Your task to perform on an android device: move an email to a new category in the gmail app Image 0: 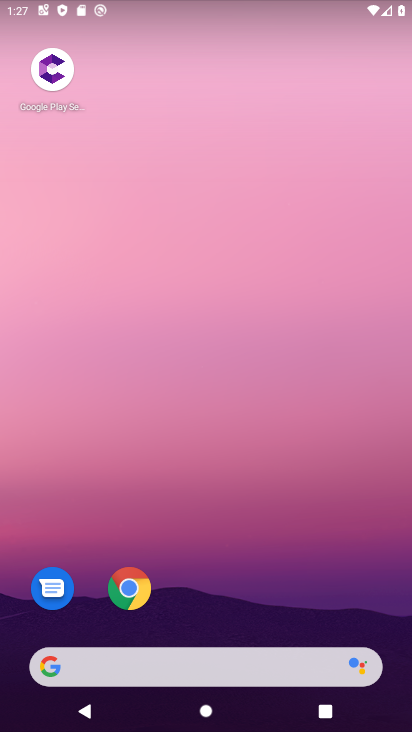
Step 0: drag from (8, 708) to (180, 306)
Your task to perform on an android device: move an email to a new category in the gmail app Image 1: 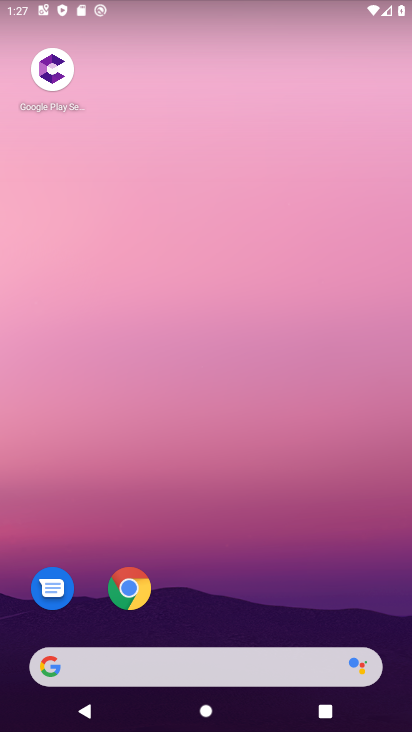
Step 1: drag from (65, 603) to (230, 117)
Your task to perform on an android device: move an email to a new category in the gmail app Image 2: 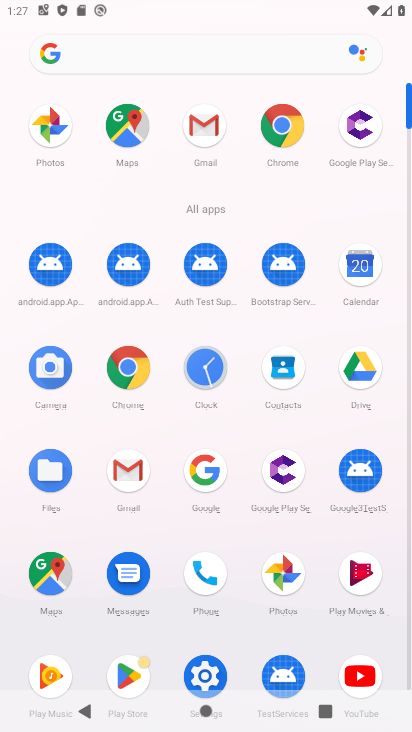
Step 2: click (129, 475)
Your task to perform on an android device: move an email to a new category in the gmail app Image 3: 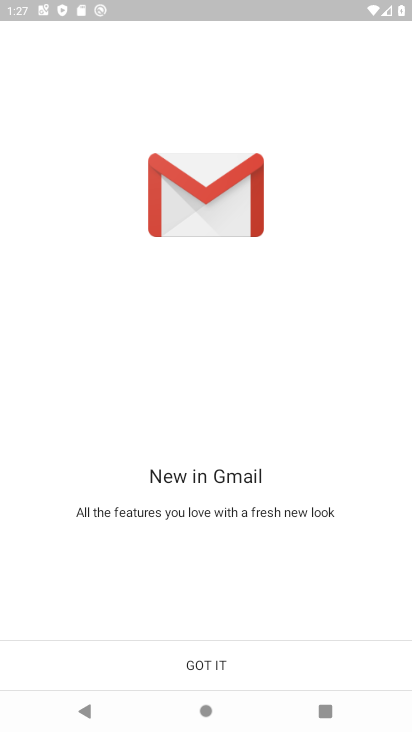
Step 3: click (194, 669)
Your task to perform on an android device: move an email to a new category in the gmail app Image 4: 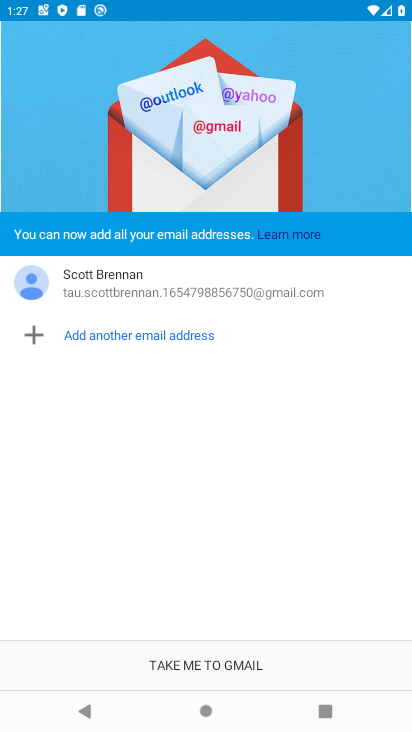
Step 4: click (194, 669)
Your task to perform on an android device: move an email to a new category in the gmail app Image 5: 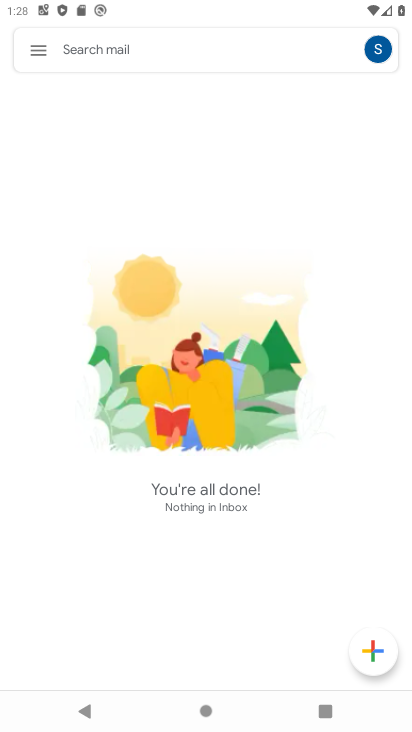
Step 5: click (31, 52)
Your task to perform on an android device: move an email to a new category in the gmail app Image 6: 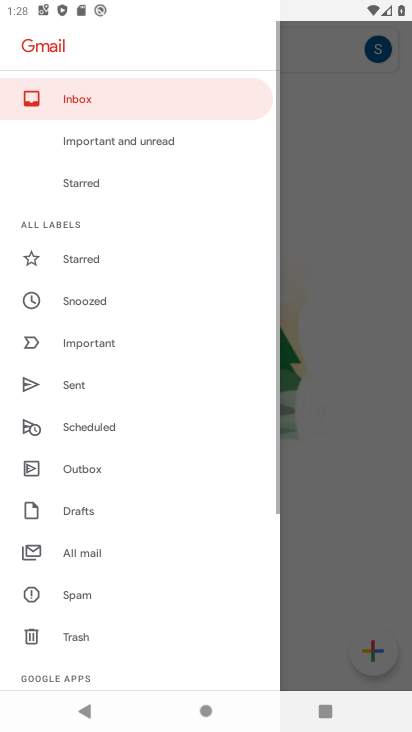
Step 6: click (158, 89)
Your task to perform on an android device: move an email to a new category in the gmail app Image 7: 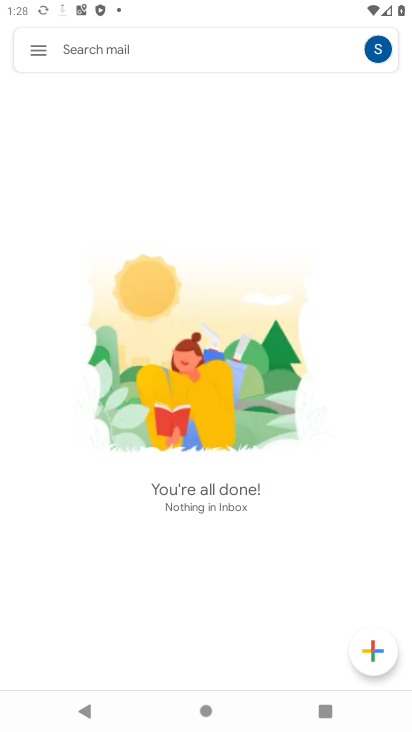
Step 7: task complete